Your task to perform on an android device: turn off picture-in-picture Image 0: 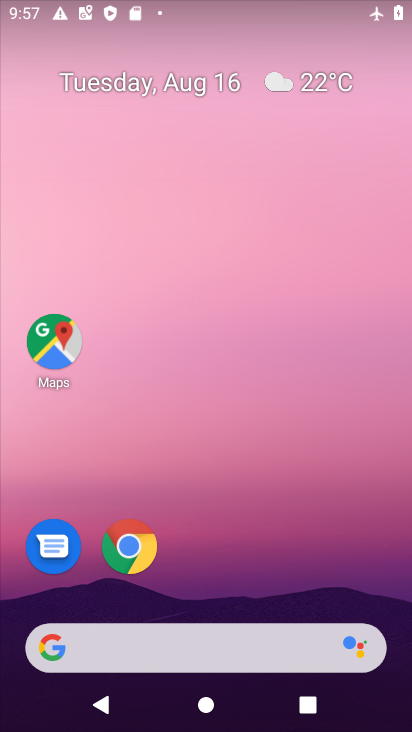
Step 0: click (133, 545)
Your task to perform on an android device: turn off picture-in-picture Image 1: 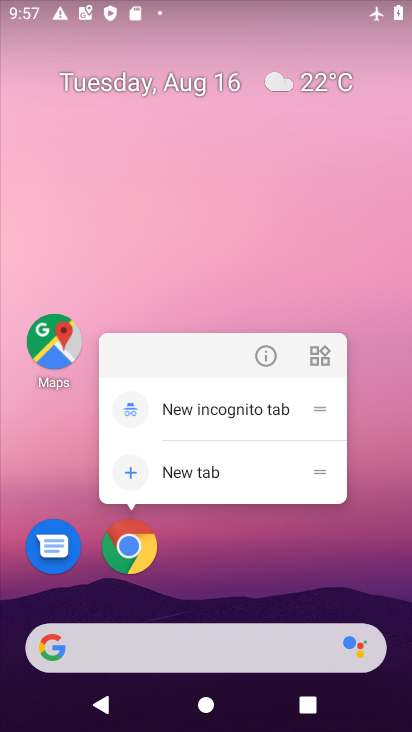
Step 1: click (266, 351)
Your task to perform on an android device: turn off picture-in-picture Image 2: 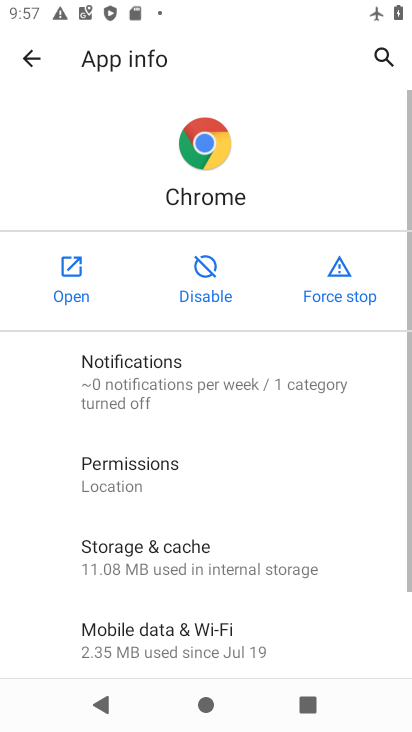
Step 2: drag from (233, 503) to (289, 116)
Your task to perform on an android device: turn off picture-in-picture Image 3: 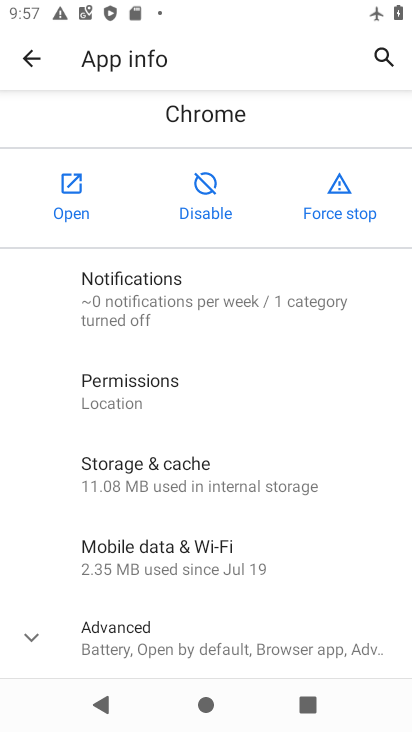
Step 3: click (34, 627)
Your task to perform on an android device: turn off picture-in-picture Image 4: 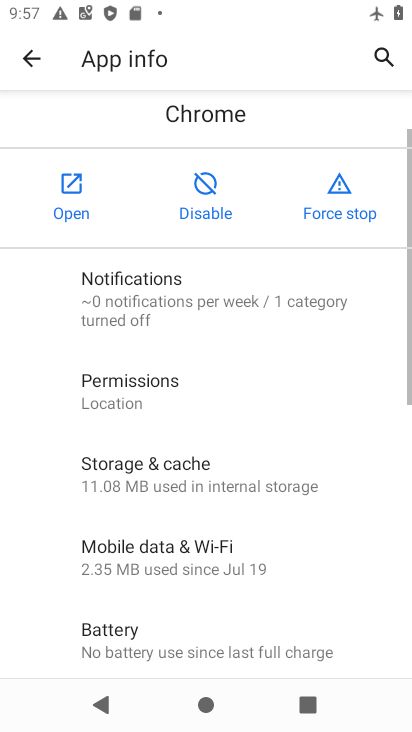
Step 4: drag from (276, 549) to (342, 134)
Your task to perform on an android device: turn off picture-in-picture Image 5: 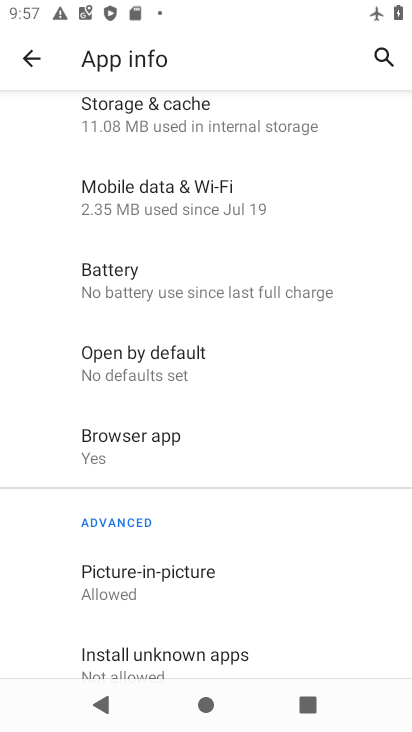
Step 5: click (174, 576)
Your task to perform on an android device: turn off picture-in-picture Image 6: 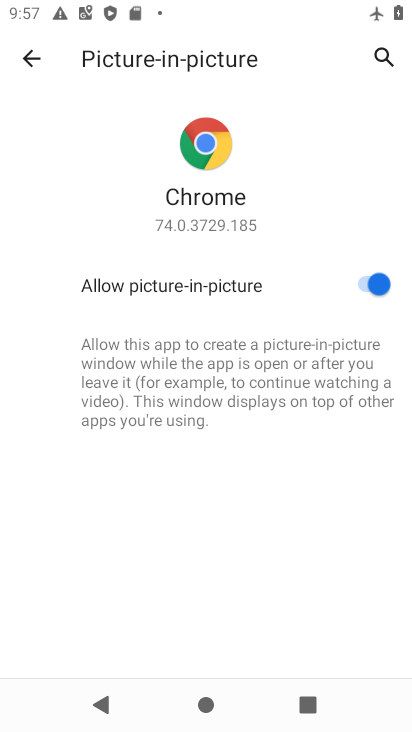
Step 6: click (377, 282)
Your task to perform on an android device: turn off picture-in-picture Image 7: 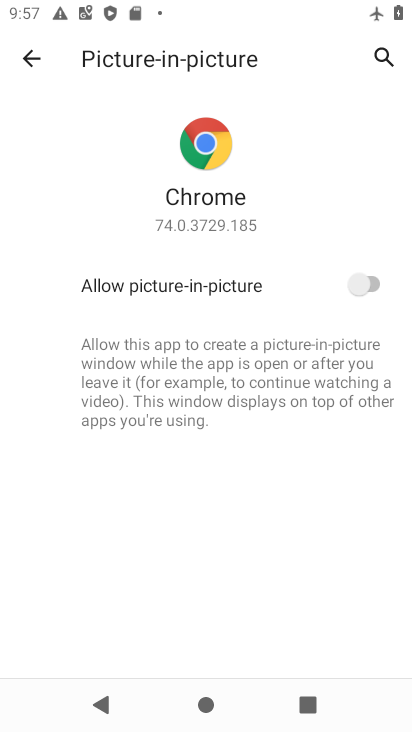
Step 7: task complete